Your task to perform on an android device: turn pop-ups off in chrome Image 0: 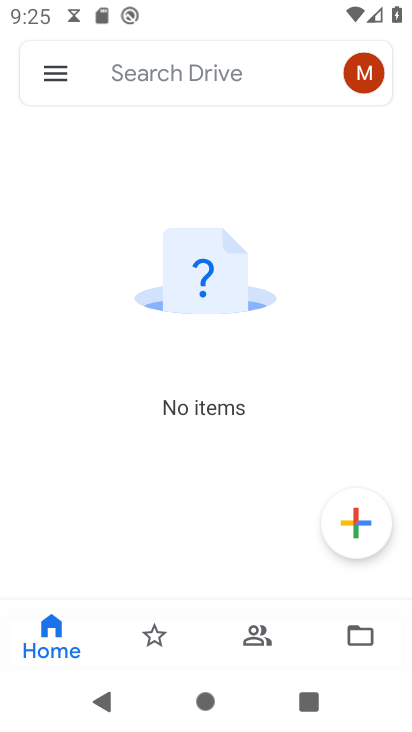
Step 0: press home button
Your task to perform on an android device: turn pop-ups off in chrome Image 1: 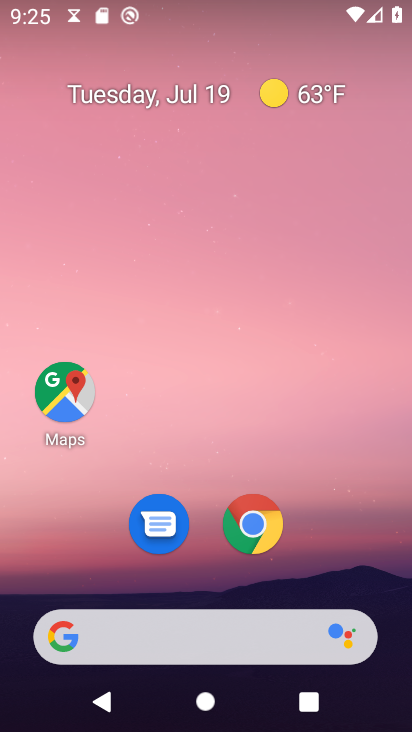
Step 1: click (254, 530)
Your task to perform on an android device: turn pop-ups off in chrome Image 2: 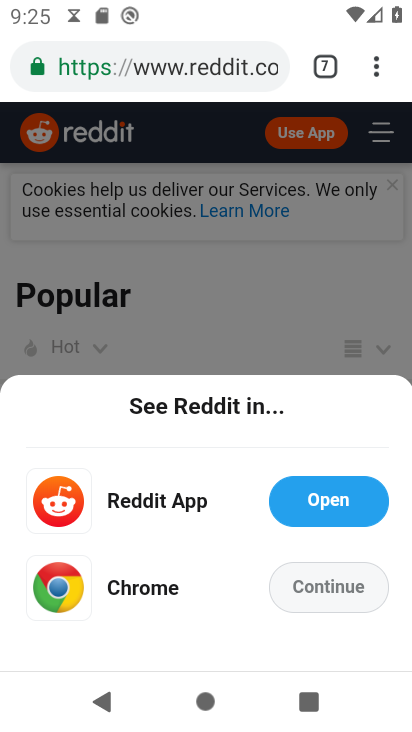
Step 2: drag from (375, 51) to (223, 542)
Your task to perform on an android device: turn pop-ups off in chrome Image 3: 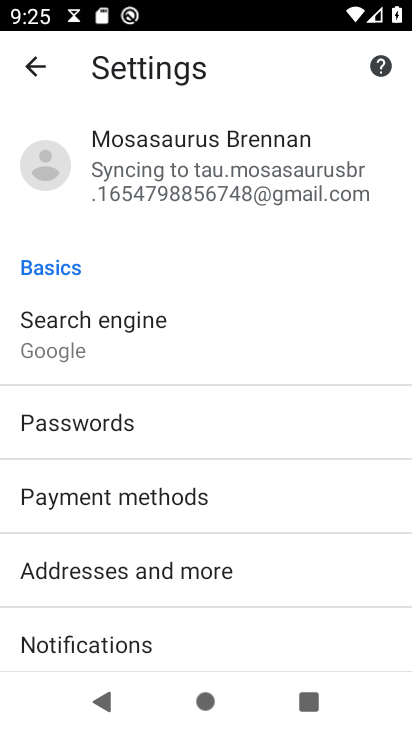
Step 3: drag from (173, 548) to (311, 146)
Your task to perform on an android device: turn pop-ups off in chrome Image 4: 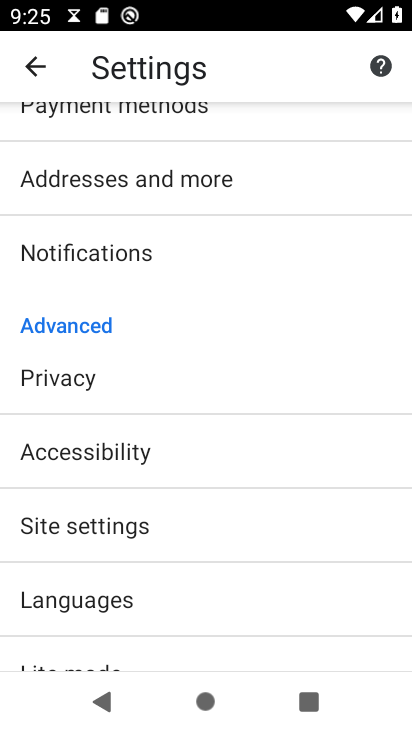
Step 4: click (147, 524)
Your task to perform on an android device: turn pop-ups off in chrome Image 5: 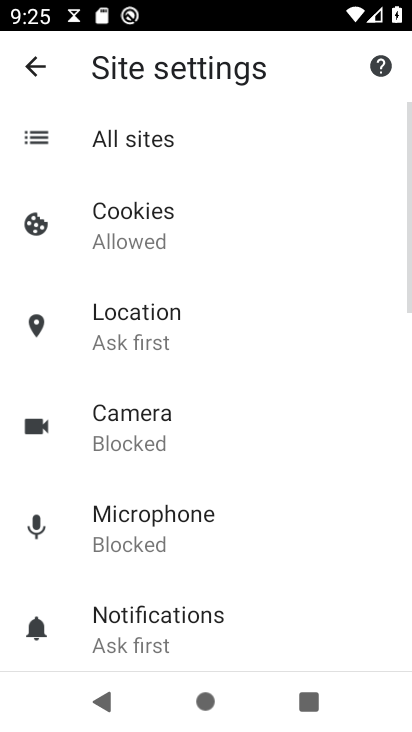
Step 5: drag from (246, 564) to (297, 99)
Your task to perform on an android device: turn pop-ups off in chrome Image 6: 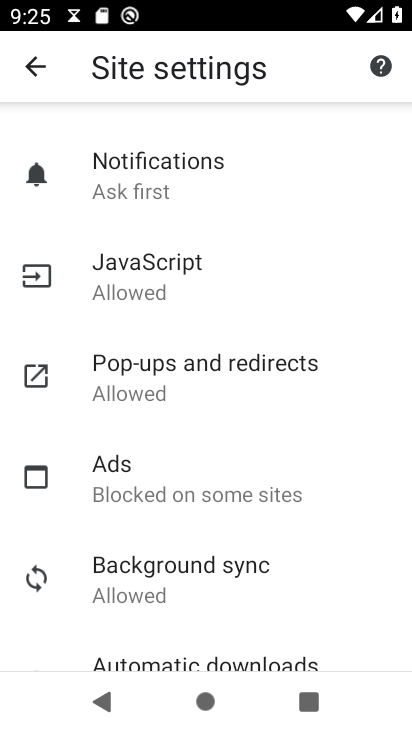
Step 6: click (172, 372)
Your task to perform on an android device: turn pop-ups off in chrome Image 7: 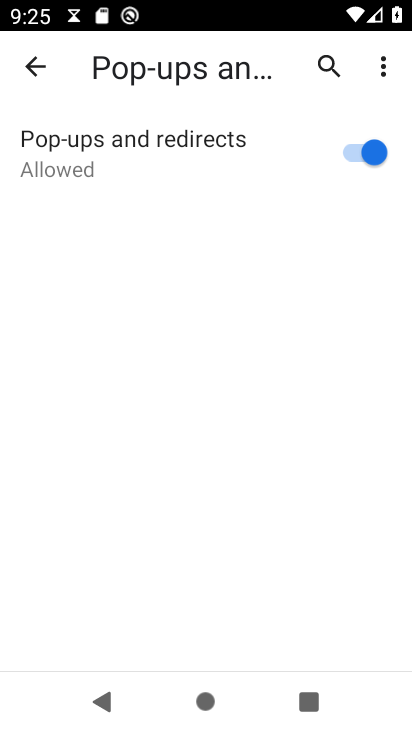
Step 7: click (352, 147)
Your task to perform on an android device: turn pop-ups off in chrome Image 8: 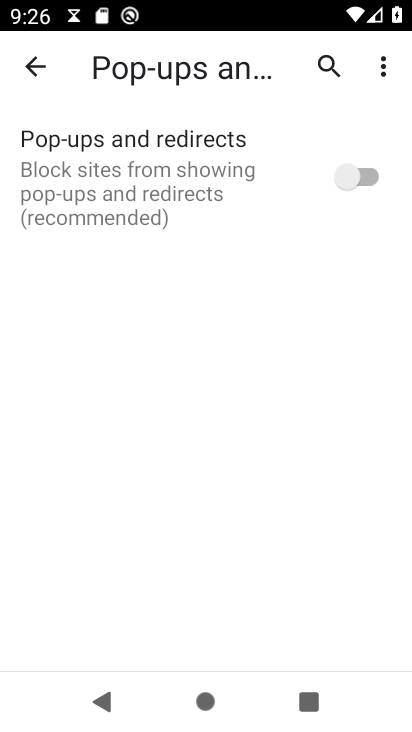
Step 8: task complete